Your task to perform on an android device: turn on sleep mode Image 0: 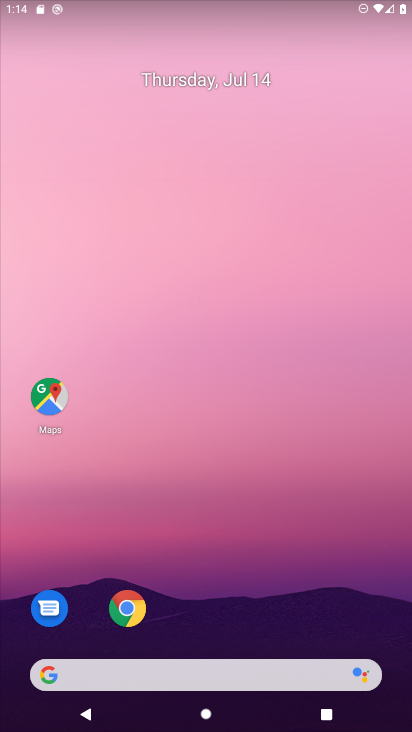
Step 0: drag from (222, 726) to (274, 60)
Your task to perform on an android device: turn on sleep mode Image 1: 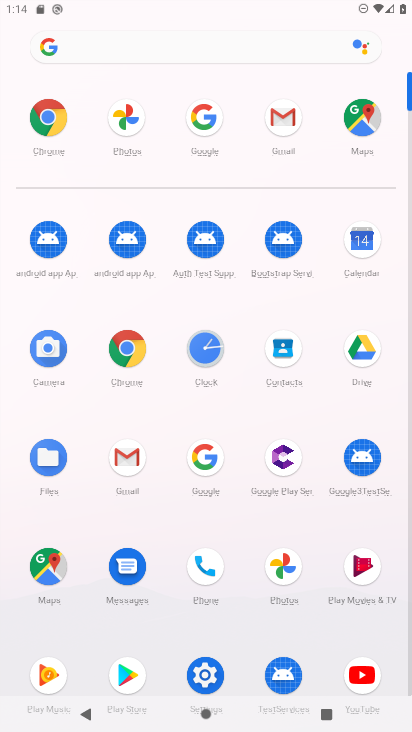
Step 1: click (211, 674)
Your task to perform on an android device: turn on sleep mode Image 2: 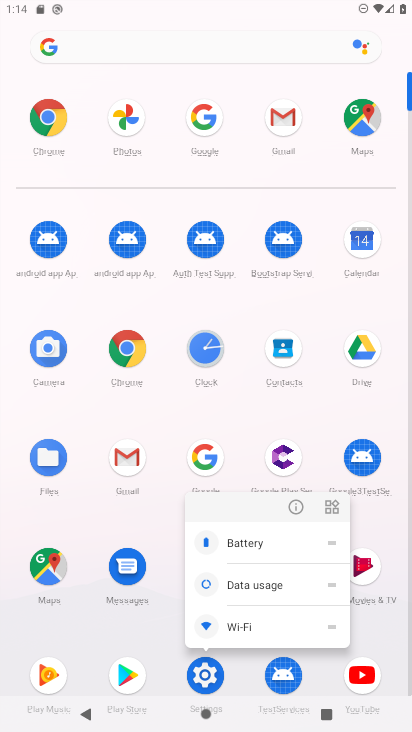
Step 2: click (209, 675)
Your task to perform on an android device: turn on sleep mode Image 3: 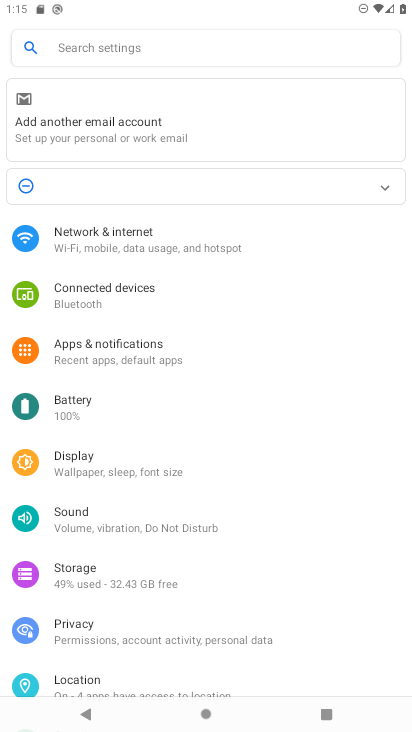
Step 3: click (115, 235)
Your task to perform on an android device: turn on sleep mode Image 4: 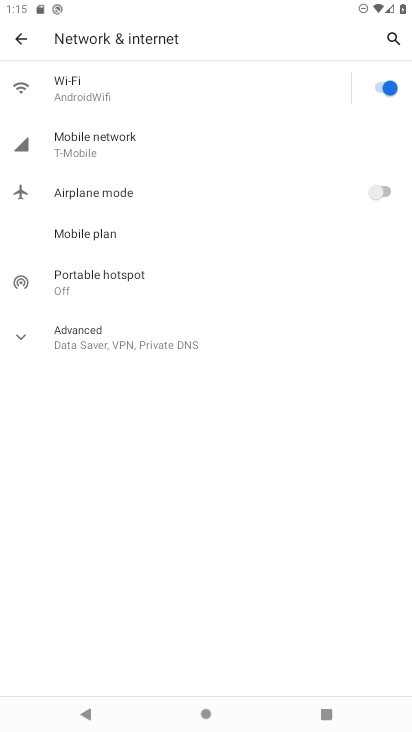
Step 4: click (20, 36)
Your task to perform on an android device: turn on sleep mode Image 5: 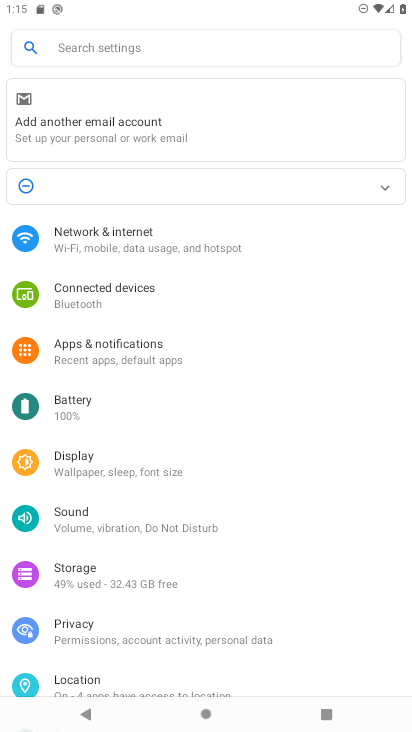
Step 5: click (119, 477)
Your task to perform on an android device: turn on sleep mode Image 6: 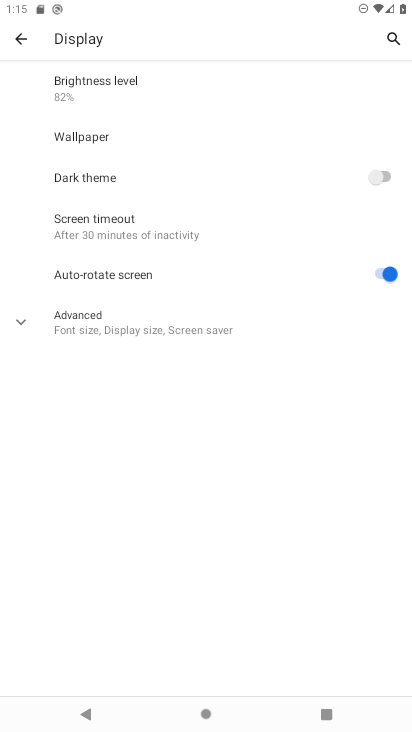
Step 6: task complete